Your task to perform on an android device: turn on showing notifications on the lock screen Image 0: 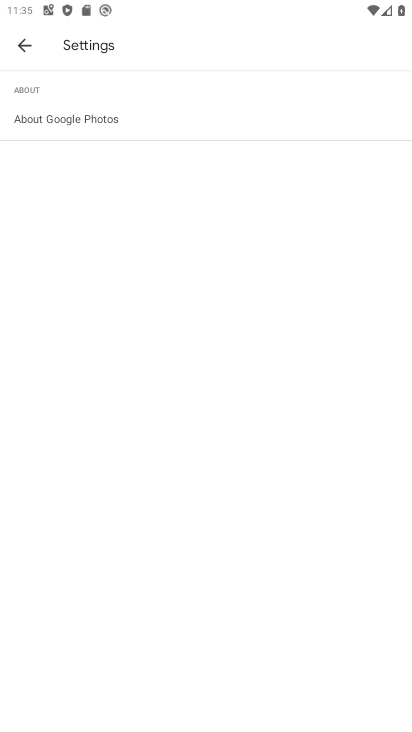
Step 0: press home button
Your task to perform on an android device: turn on showing notifications on the lock screen Image 1: 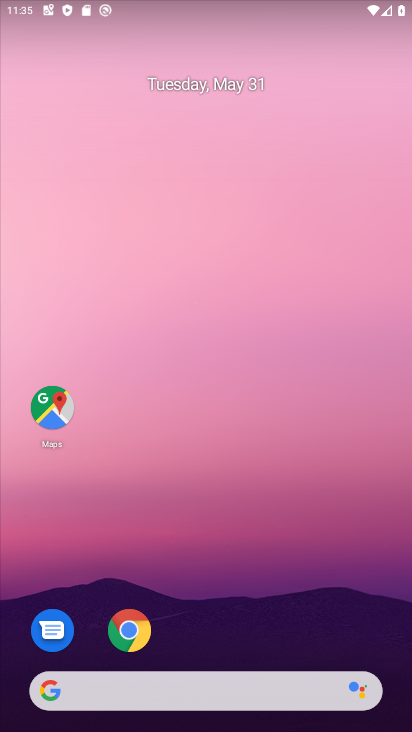
Step 1: drag from (191, 574) to (277, 179)
Your task to perform on an android device: turn on showing notifications on the lock screen Image 2: 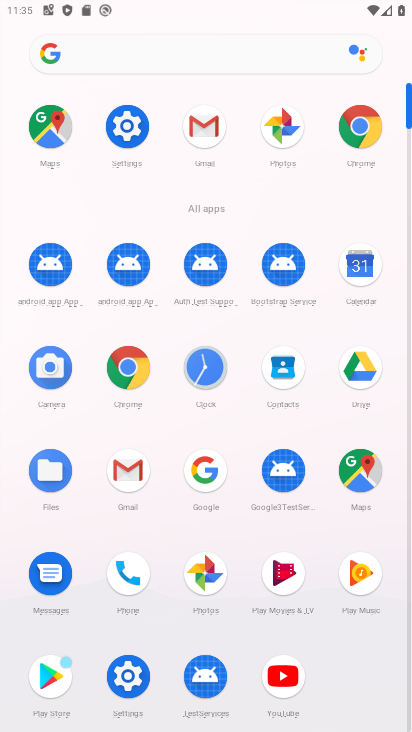
Step 2: click (122, 122)
Your task to perform on an android device: turn on showing notifications on the lock screen Image 3: 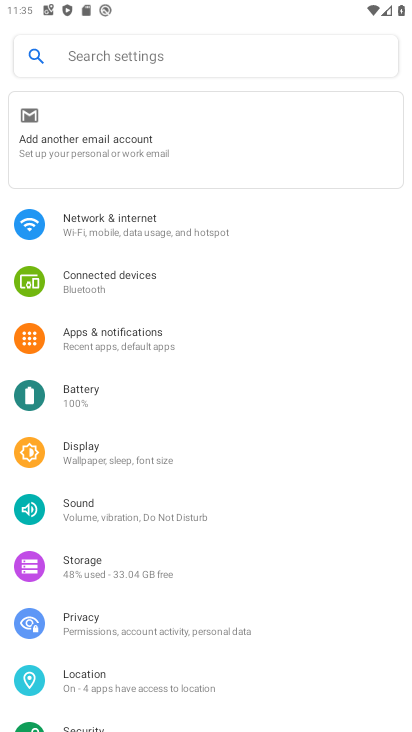
Step 3: click (113, 346)
Your task to perform on an android device: turn on showing notifications on the lock screen Image 4: 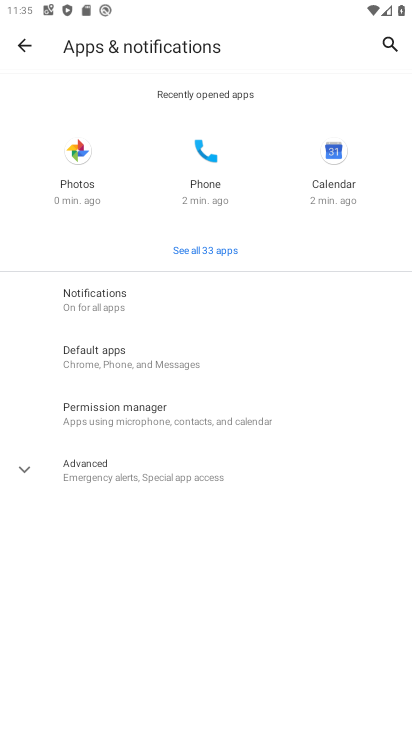
Step 4: click (180, 311)
Your task to perform on an android device: turn on showing notifications on the lock screen Image 5: 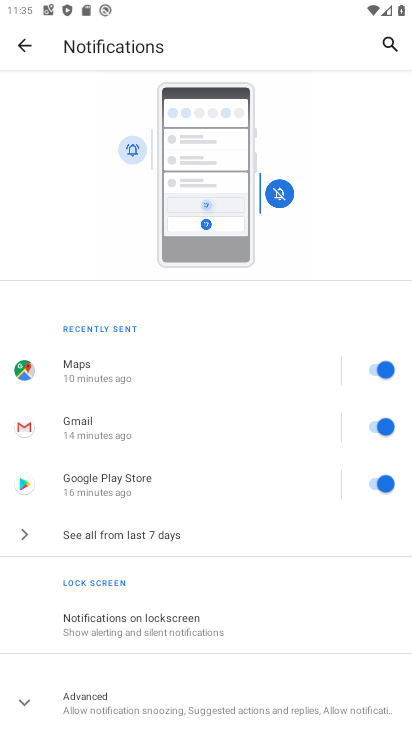
Step 5: click (101, 626)
Your task to perform on an android device: turn on showing notifications on the lock screen Image 6: 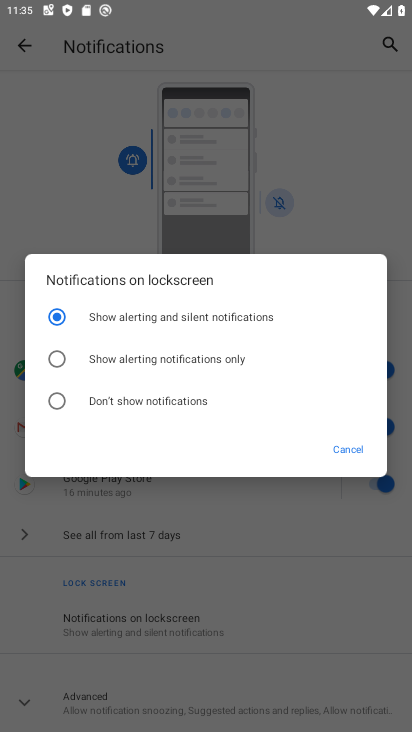
Step 6: task complete